Your task to perform on an android device: turn on javascript in the chrome app Image 0: 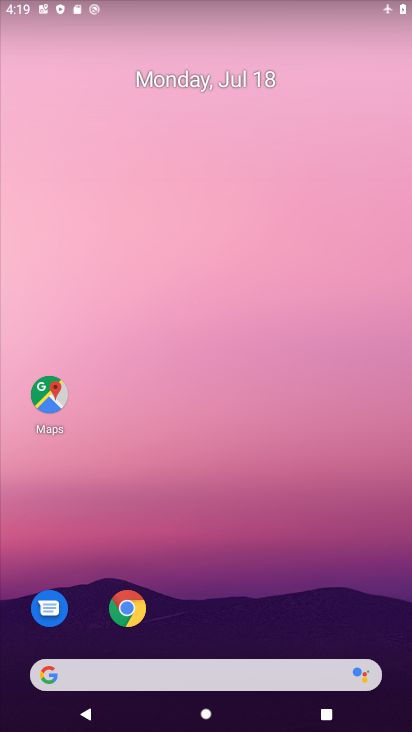
Step 0: drag from (289, 611) to (241, 68)
Your task to perform on an android device: turn on javascript in the chrome app Image 1: 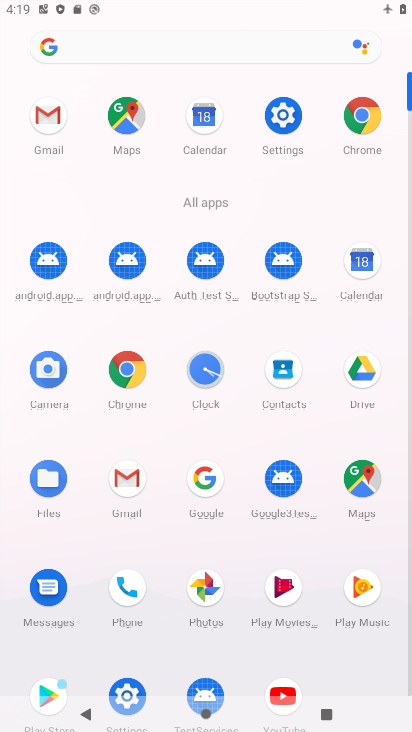
Step 1: click (128, 363)
Your task to perform on an android device: turn on javascript in the chrome app Image 2: 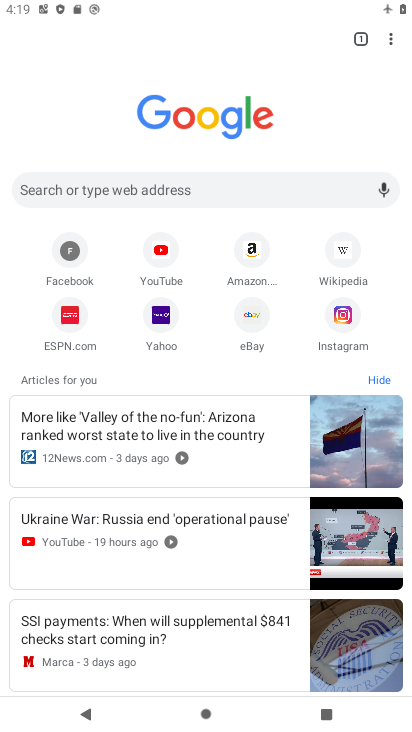
Step 2: drag from (390, 38) to (262, 318)
Your task to perform on an android device: turn on javascript in the chrome app Image 3: 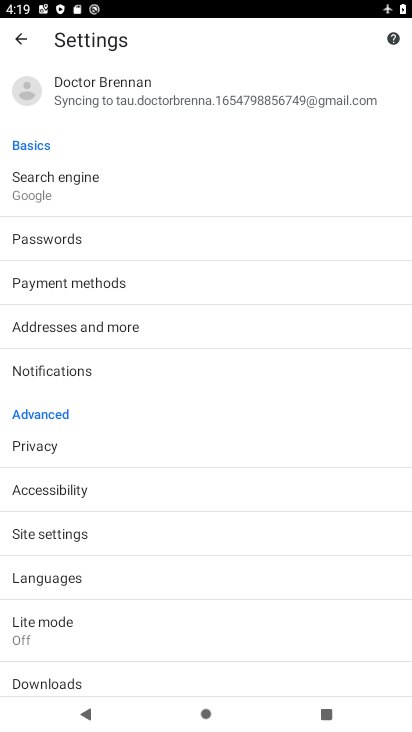
Step 3: click (86, 530)
Your task to perform on an android device: turn on javascript in the chrome app Image 4: 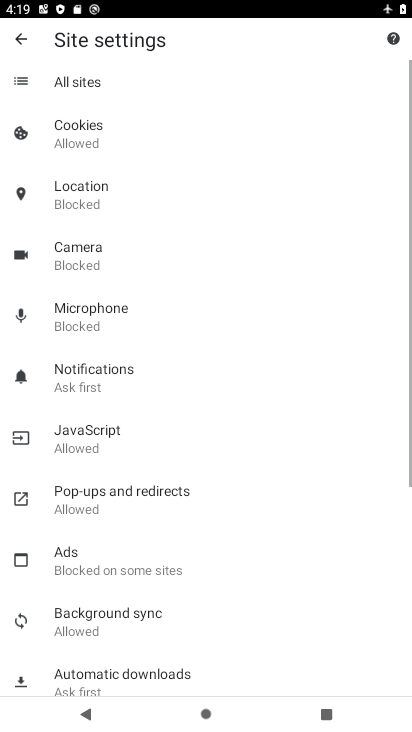
Step 4: click (96, 439)
Your task to perform on an android device: turn on javascript in the chrome app Image 5: 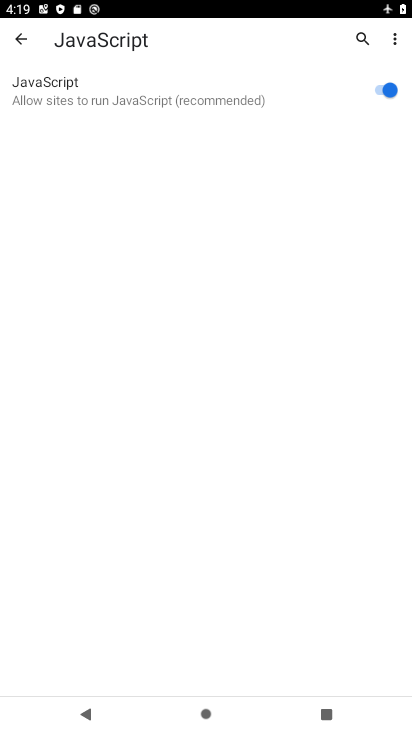
Step 5: task complete